Your task to perform on an android device: Go to Wikipedia Image 0: 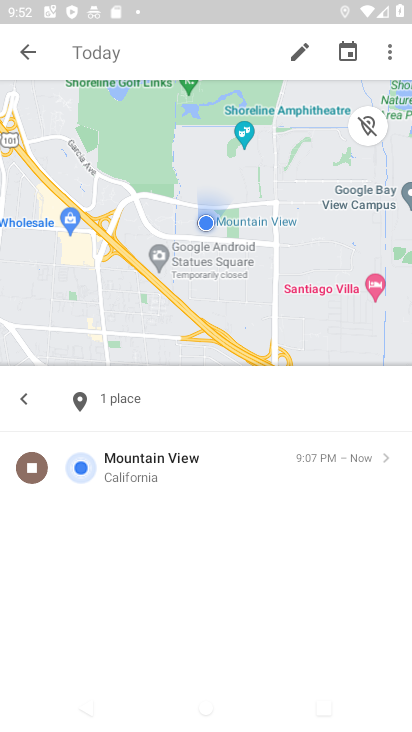
Step 0: press home button
Your task to perform on an android device: Go to Wikipedia Image 1: 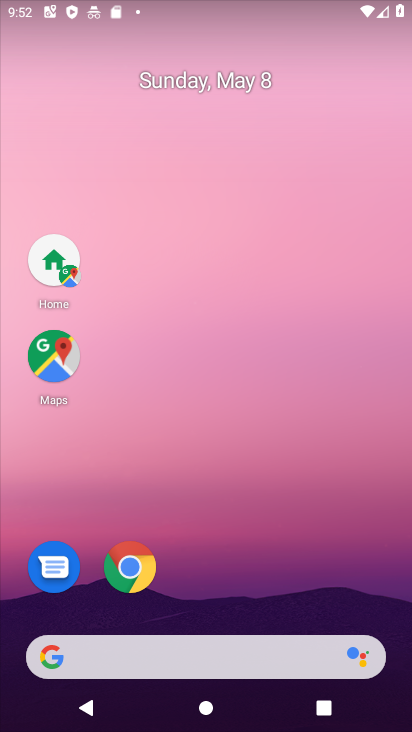
Step 1: drag from (326, 571) to (176, 36)
Your task to perform on an android device: Go to Wikipedia Image 2: 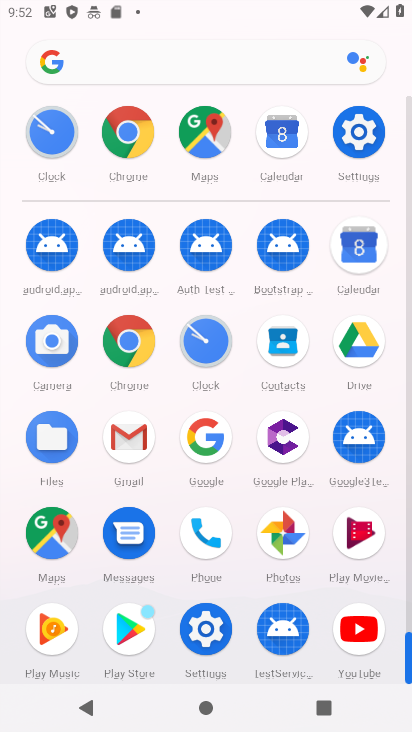
Step 2: click (129, 123)
Your task to perform on an android device: Go to Wikipedia Image 3: 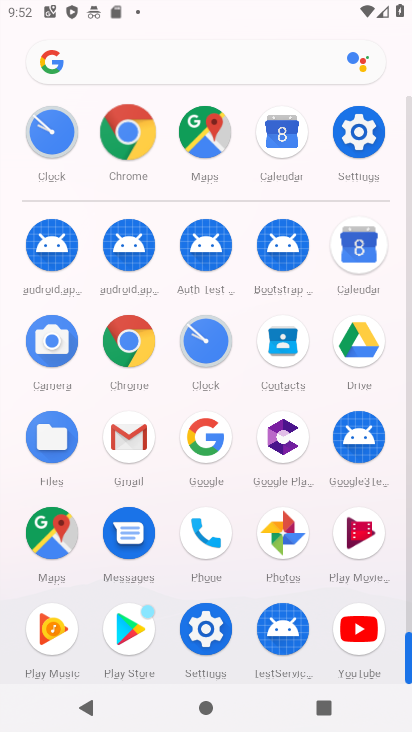
Step 3: click (124, 127)
Your task to perform on an android device: Go to Wikipedia Image 4: 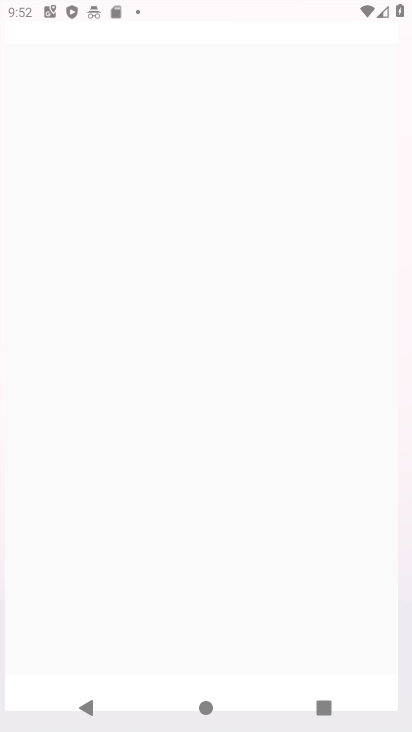
Step 4: click (124, 127)
Your task to perform on an android device: Go to Wikipedia Image 5: 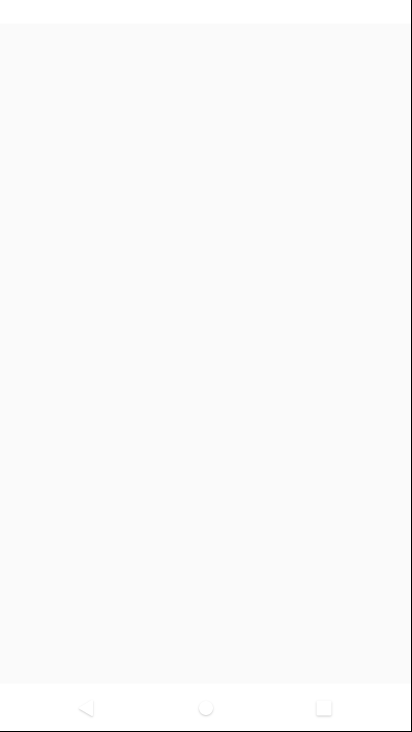
Step 5: click (126, 127)
Your task to perform on an android device: Go to Wikipedia Image 6: 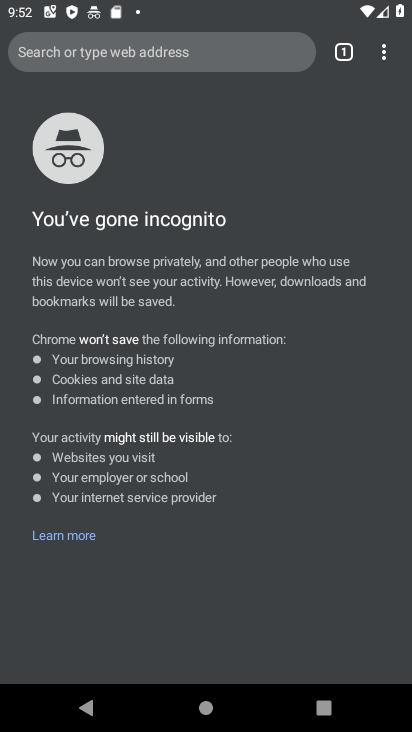
Step 6: click (384, 53)
Your task to perform on an android device: Go to Wikipedia Image 7: 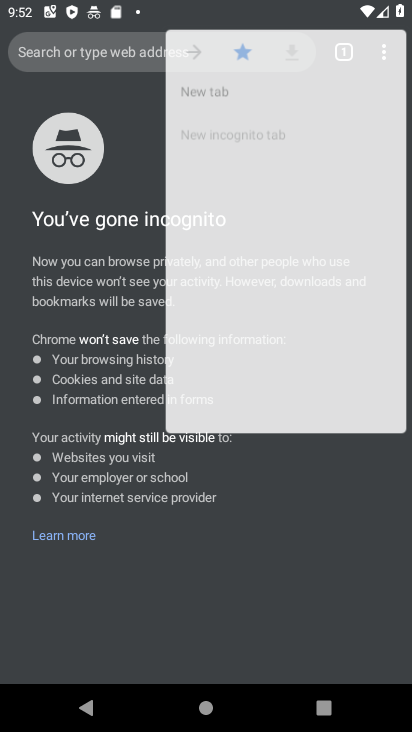
Step 7: click (384, 53)
Your task to perform on an android device: Go to Wikipedia Image 8: 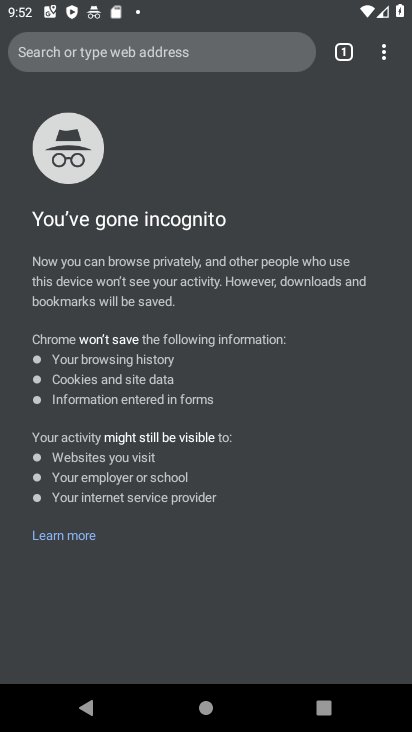
Step 8: click (380, 54)
Your task to perform on an android device: Go to Wikipedia Image 9: 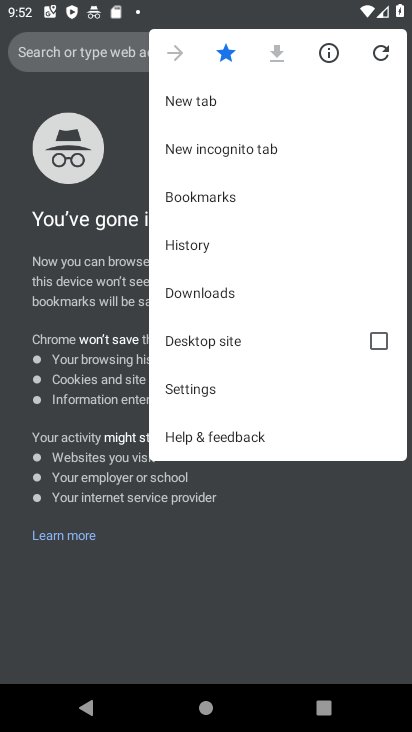
Step 9: click (198, 96)
Your task to perform on an android device: Go to Wikipedia Image 10: 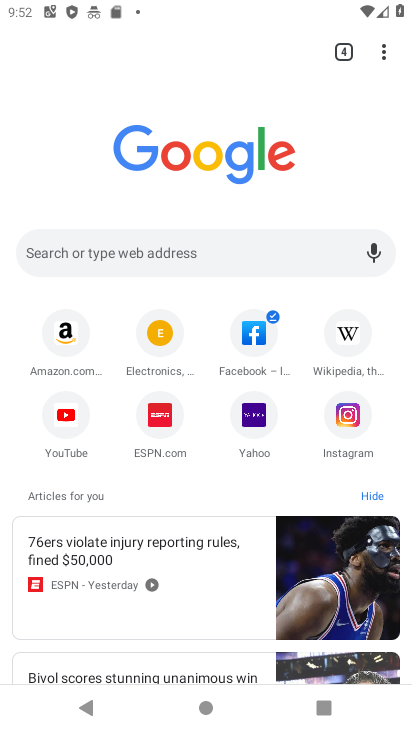
Step 10: click (199, 95)
Your task to perform on an android device: Go to Wikipedia Image 11: 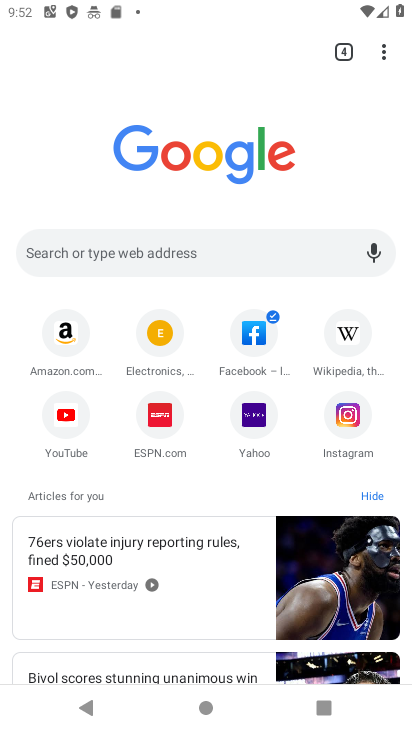
Step 11: click (351, 337)
Your task to perform on an android device: Go to Wikipedia Image 12: 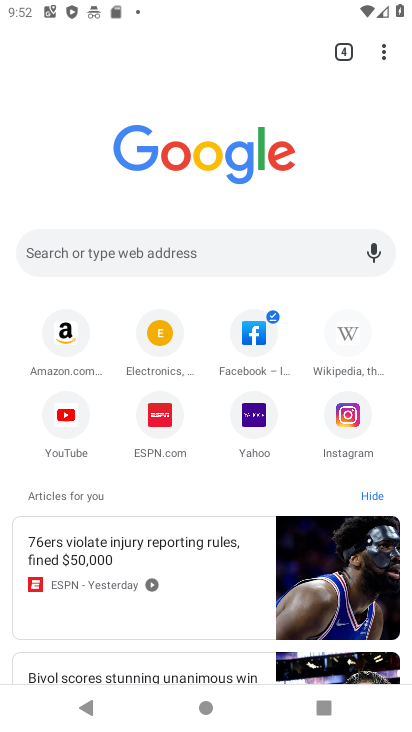
Step 12: click (351, 337)
Your task to perform on an android device: Go to Wikipedia Image 13: 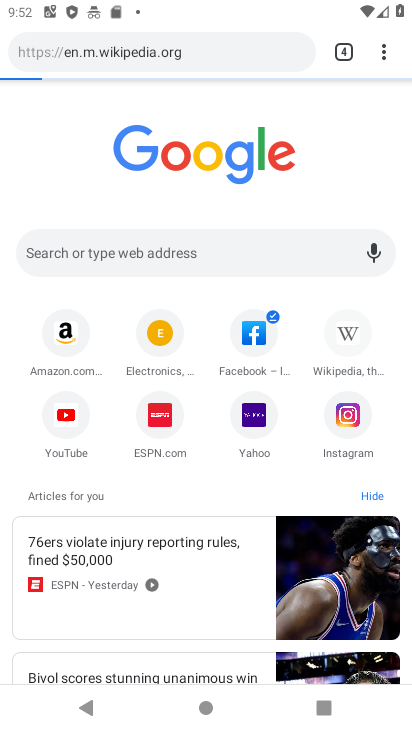
Step 13: click (351, 337)
Your task to perform on an android device: Go to Wikipedia Image 14: 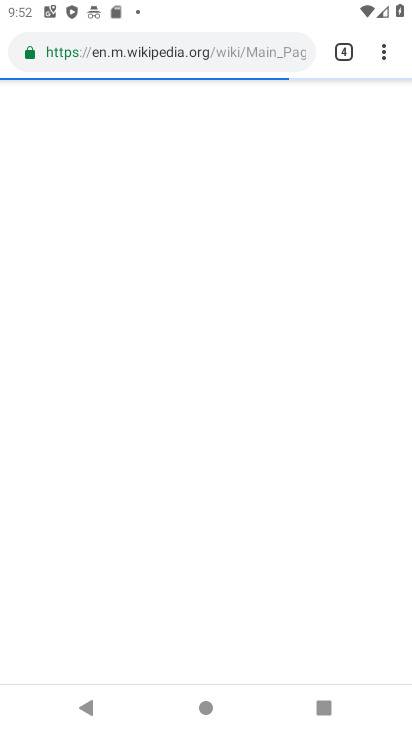
Step 14: click (351, 335)
Your task to perform on an android device: Go to Wikipedia Image 15: 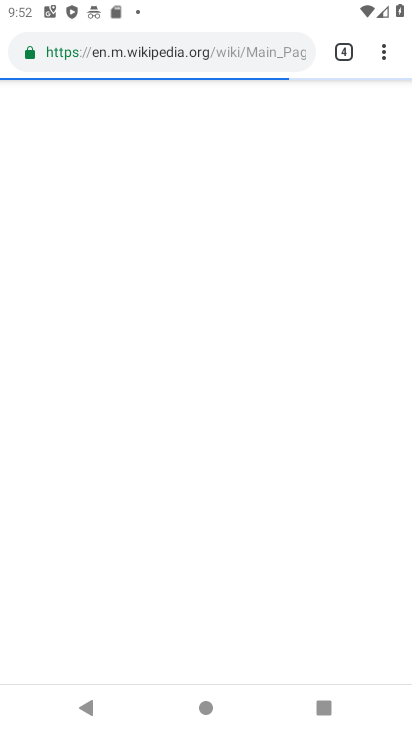
Step 15: click (351, 335)
Your task to perform on an android device: Go to Wikipedia Image 16: 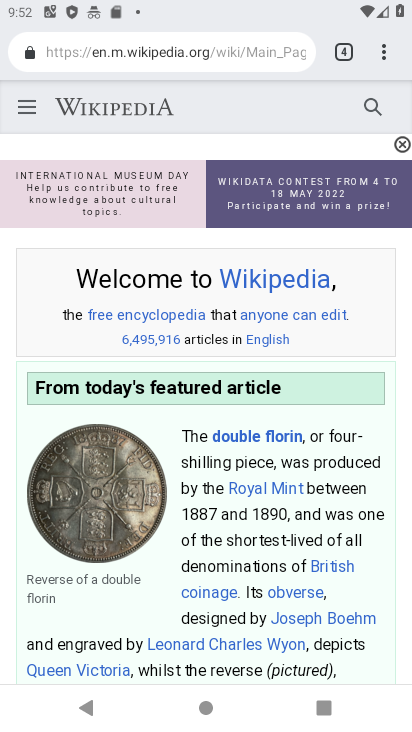
Step 16: task complete